Your task to perform on an android device: Find coffee shops on Maps Image 0: 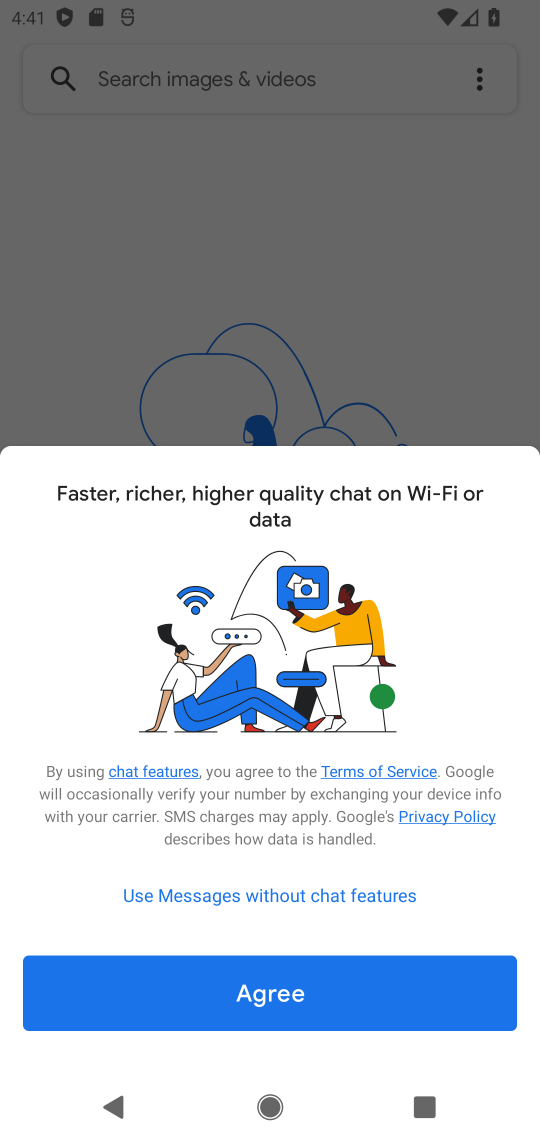
Step 0: press home button
Your task to perform on an android device: Find coffee shops on Maps Image 1: 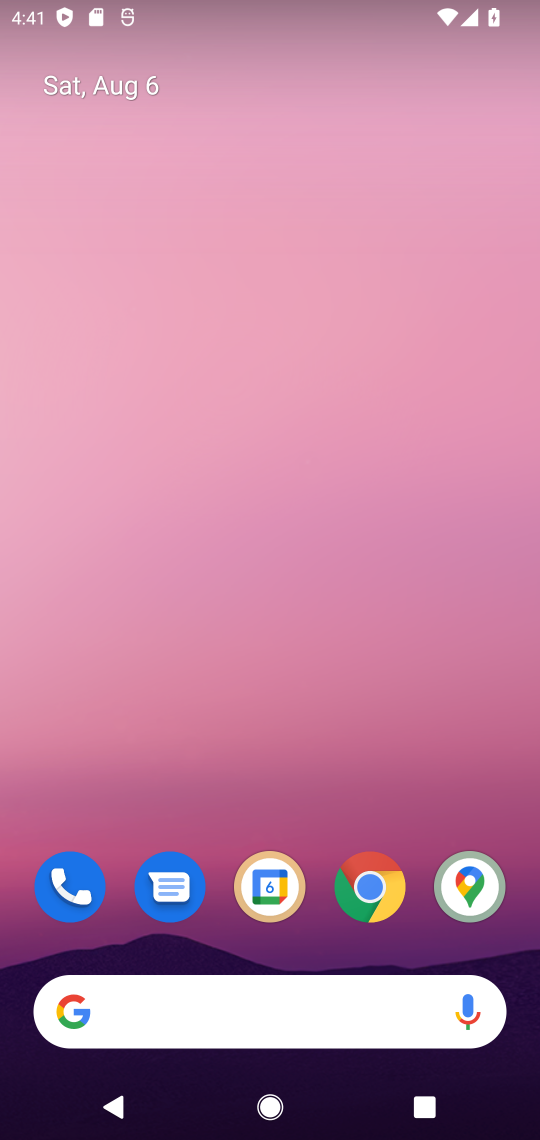
Step 1: click (475, 885)
Your task to perform on an android device: Find coffee shops on Maps Image 2: 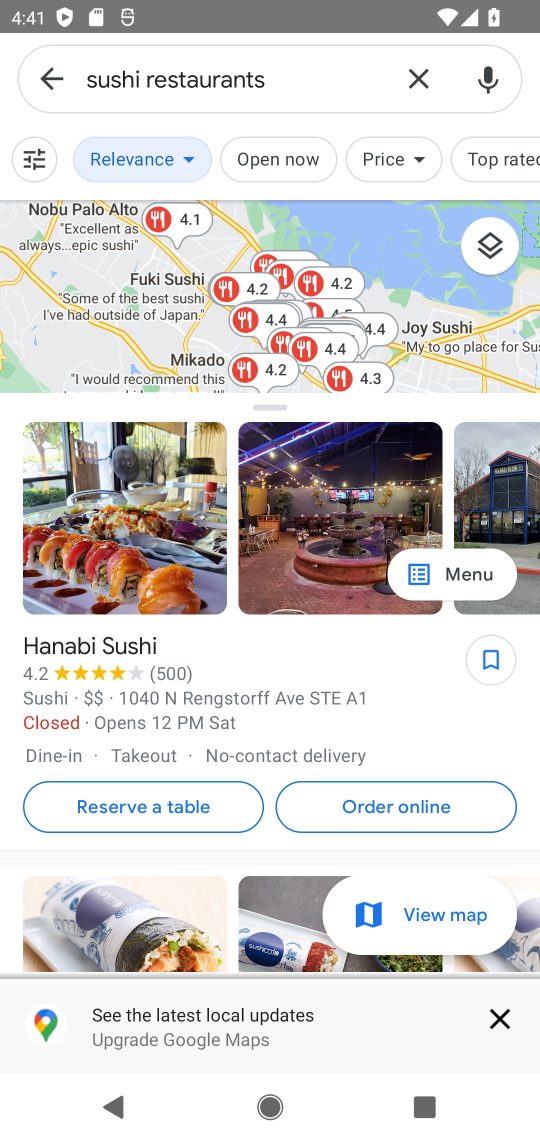
Step 2: click (424, 83)
Your task to perform on an android device: Find coffee shops on Maps Image 3: 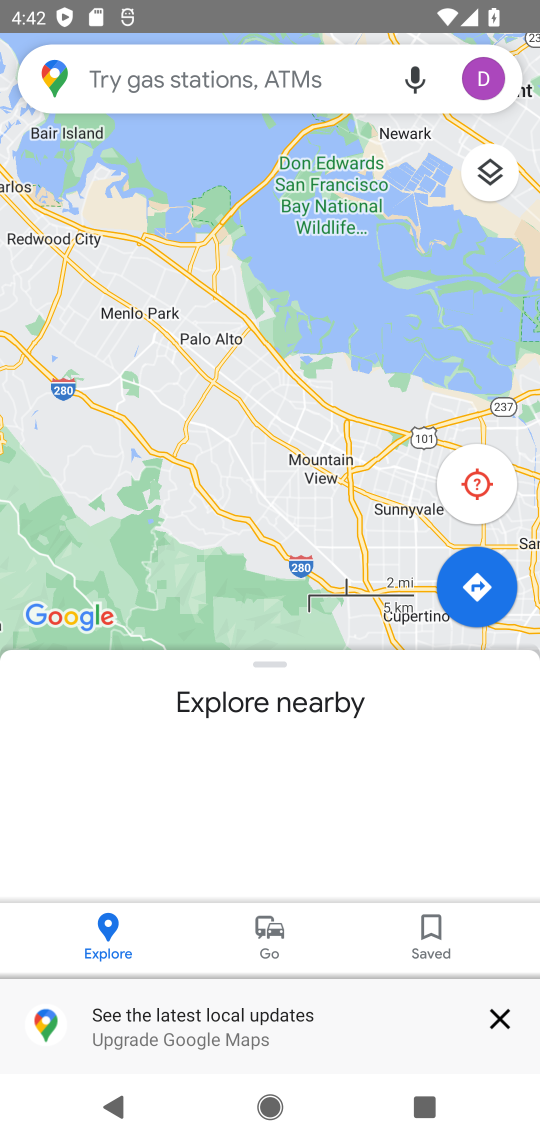
Step 3: click (272, 80)
Your task to perform on an android device: Find coffee shops on Maps Image 4: 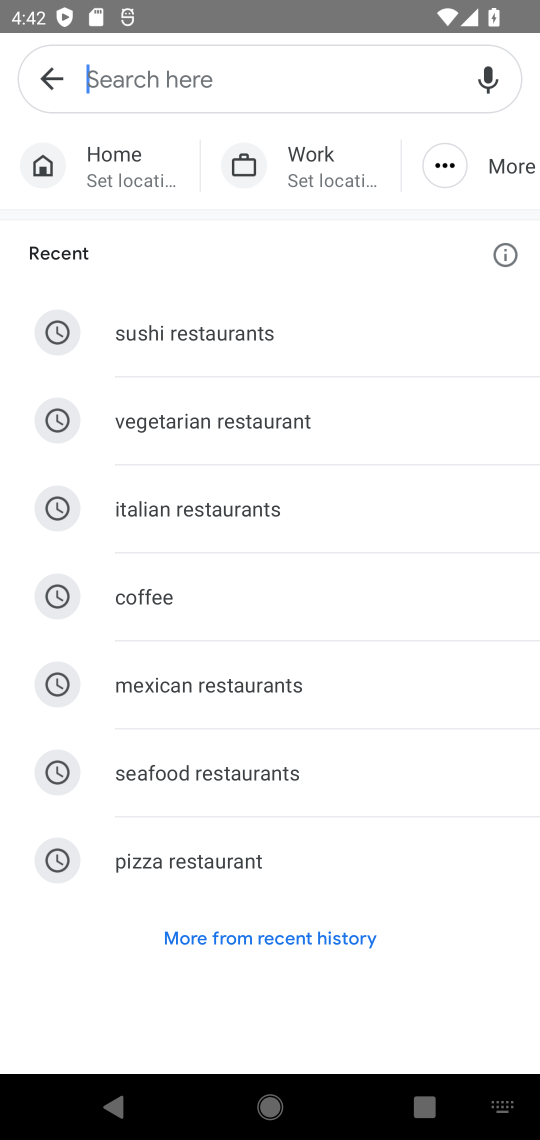
Step 4: type "coffee shops"
Your task to perform on an android device: Find coffee shops on Maps Image 5: 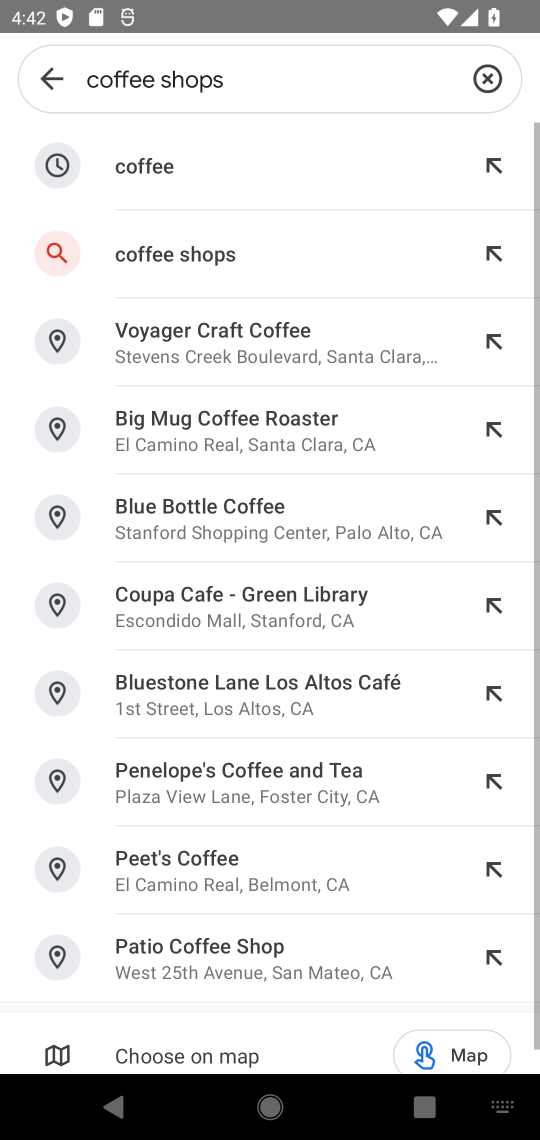
Step 5: click (195, 261)
Your task to perform on an android device: Find coffee shops on Maps Image 6: 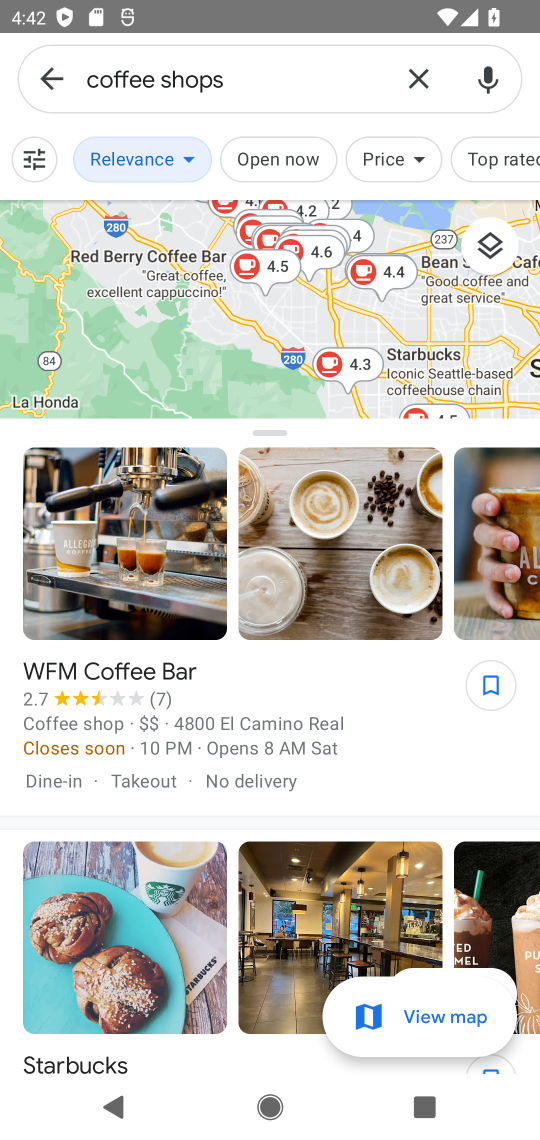
Step 6: task complete